Your task to perform on an android device: Turn on the flashlight Image 0: 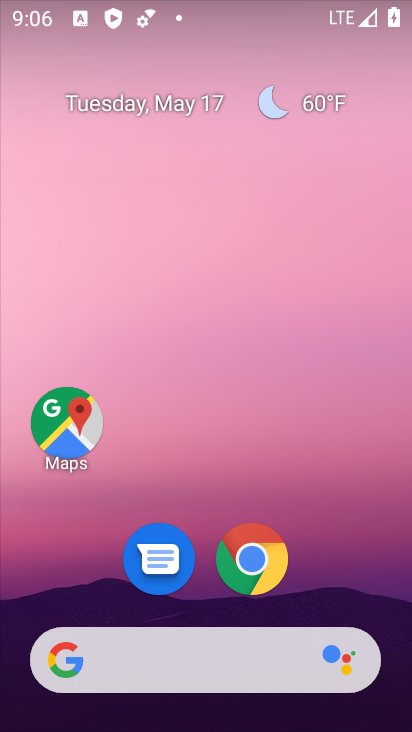
Step 0: drag from (221, 546) to (221, 185)
Your task to perform on an android device: Turn on the flashlight Image 1: 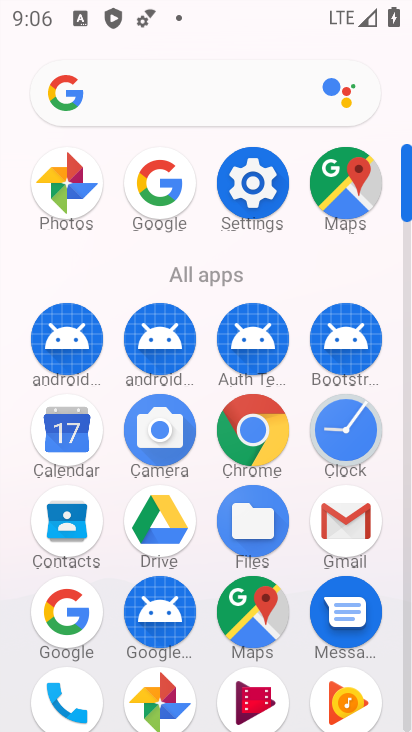
Step 1: click (221, 170)
Your task to perform on an android device: Turn on the flashlight Image 2: 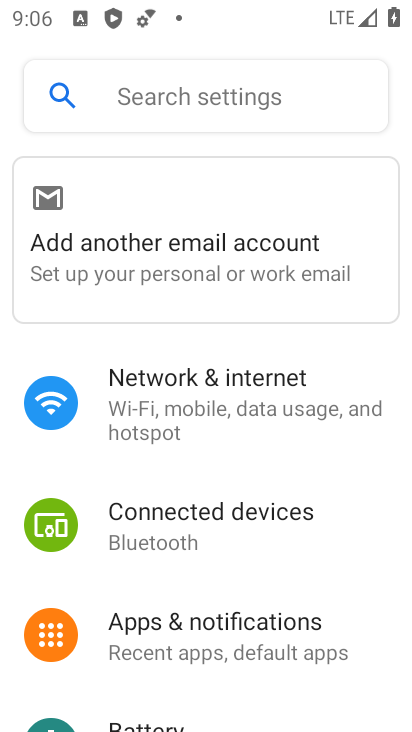
Step 2: task complete